Your task to perform on an android device: Open battery settings Image 0: 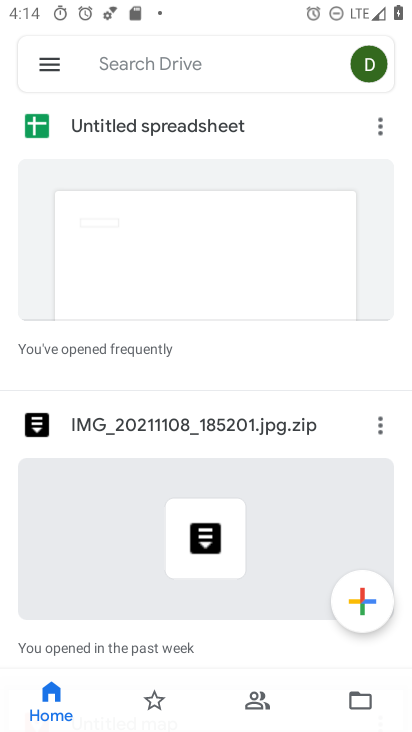
Step 0: press home button
Your task to perform on an android device: Open battery settings Image 1: 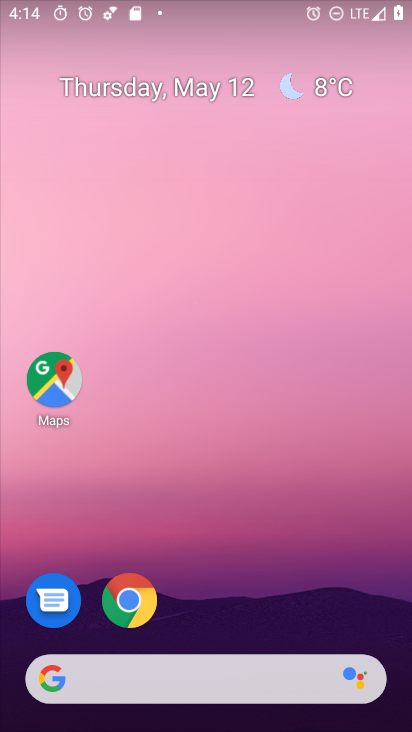
Step 1: drag from (223, 727) to (226, 188)
Your task to perform on an android device: Open battery settings Image 2: 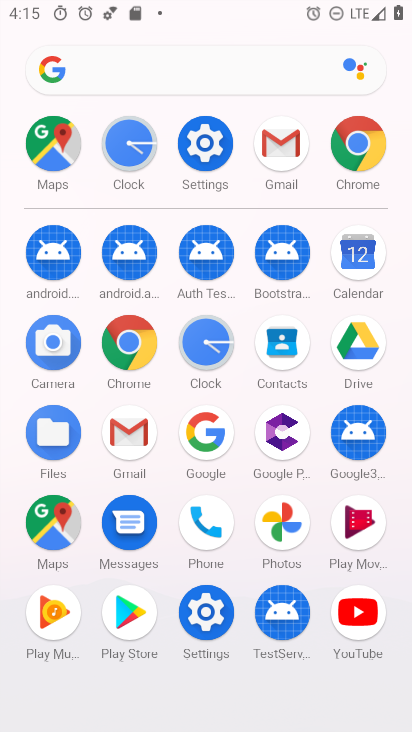
Step 2: click (203, 143)
Your task to perform on an android device: Open battery settings Image 3: 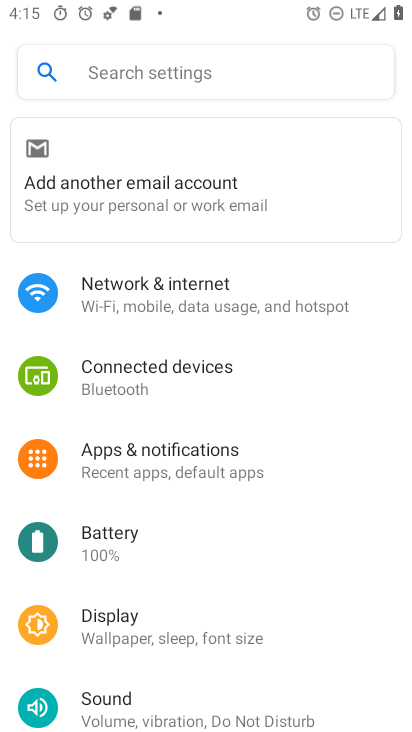
Step 3: click (109, 537)
Your task to perform on an android device: Open battery settings Image 4: 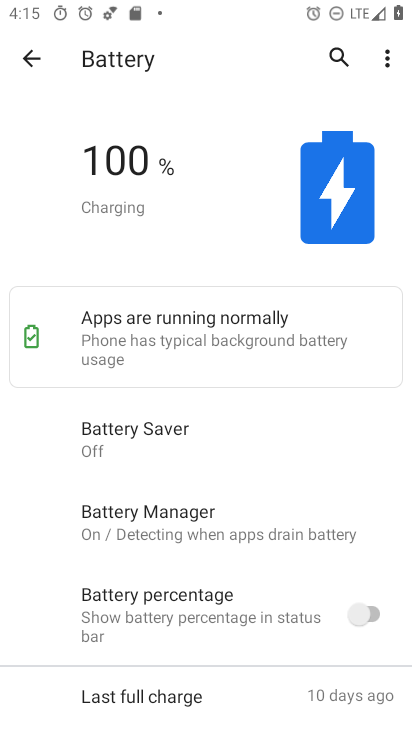
Step 4: task complete